Your task to perform on an android device: toggle improve location accuracy Image 0: 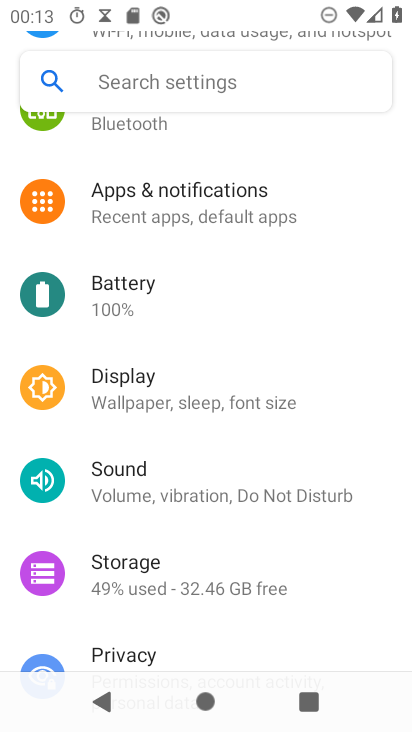
Step 0: press home button
Your task to perform on an android device: toggle improve location accuracy Image 1: 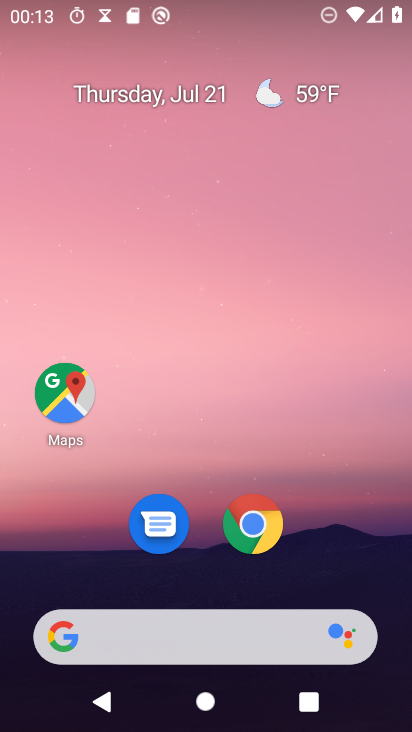
Step 1: drag from (220, 656) to (351, 147)
Your task to perform on an android device: toggle improve location accuracy Image 2: 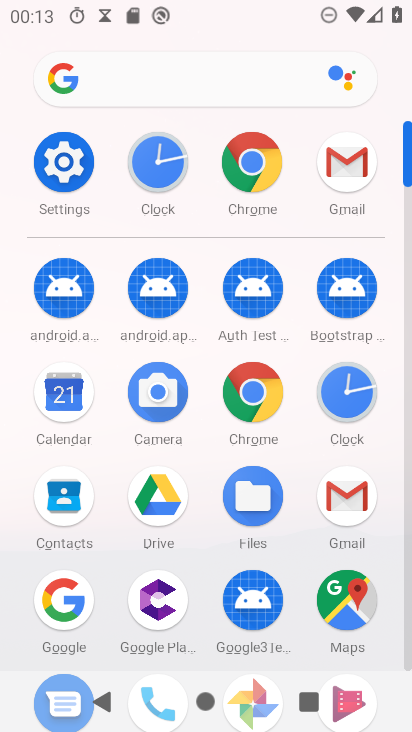
Step 2: click (78, 162)
Your task to perform on an android device: toggle improve location accuracy Image 3: 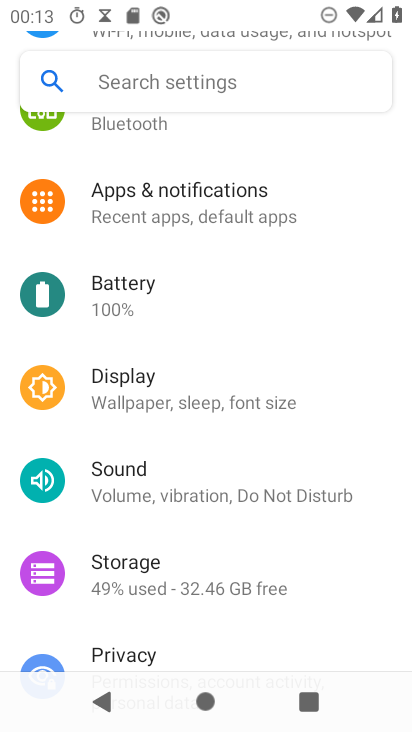
Step 3: drag from (227, 627) to (357, 187)
Your task to perform on an android device: toggle improve location accuracy Image 4: 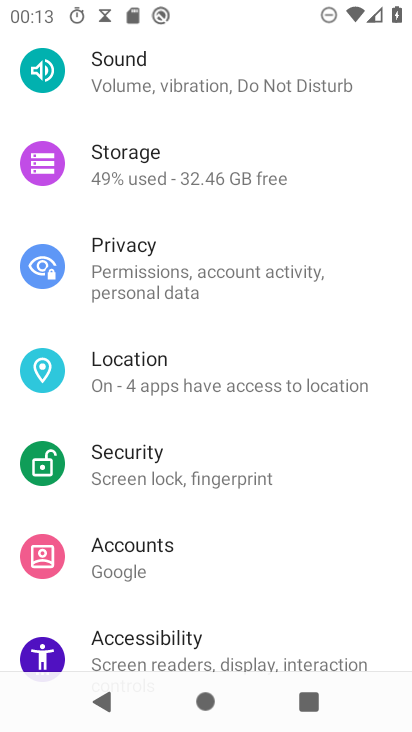
Step 4: click (138, 370)
Your task to perform on an android device: toggle improve location accuracy Image 5: 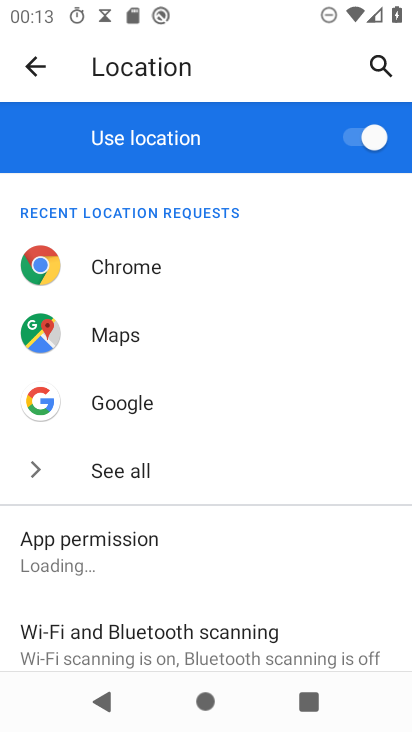
Step 5: drag from (280, 315) to (306, 119)
Your task to perform on an android device: toggle improve location accuracy Image 6: 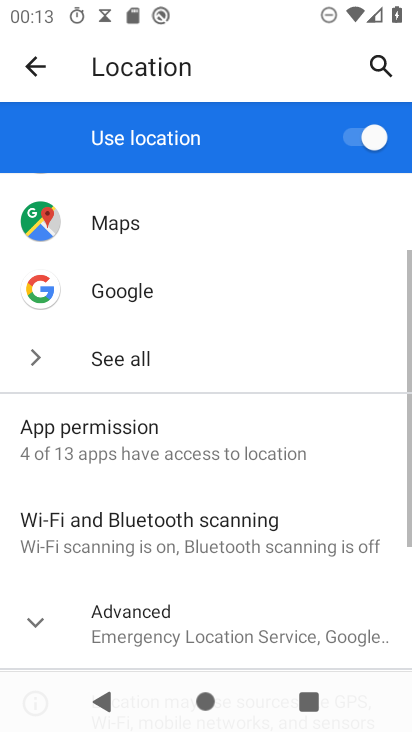
Step 6: click (179, 615)
Your task to perform on an android device: toggle improve location accuracy Image 7: 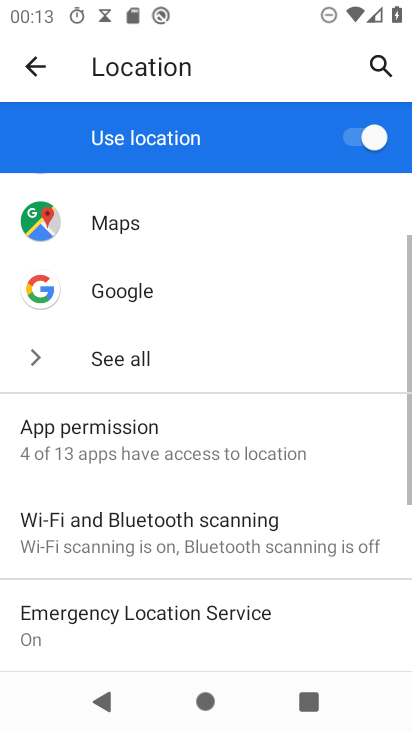
Step 7: drag from (207, 592) to (319, 237)
Your task to perform on an android device: toggle improve location accuracy Image 8: 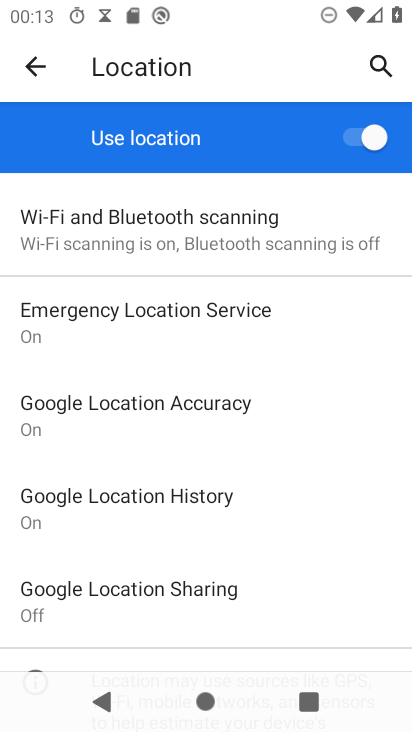
Step 8: click (177, 420)
Your task to perform on an android device: toggle improve location accuracy Image 9: 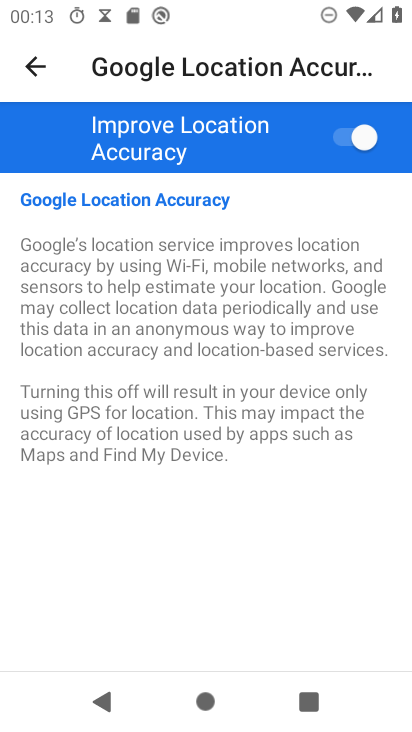
Step 9: click (344, 136)
Your task to perform on an android device: toggle improve location accuracy Image 10: 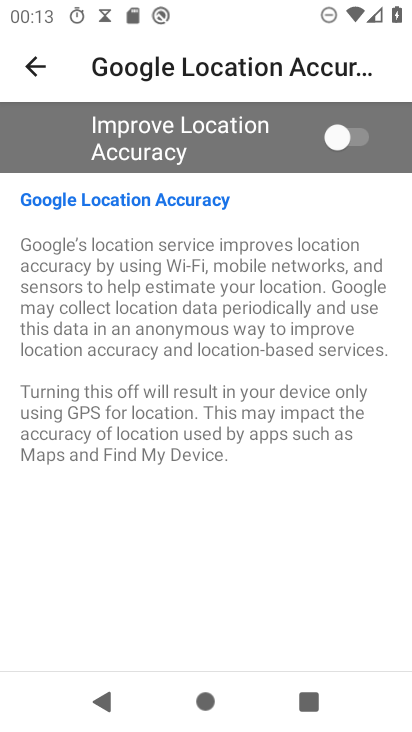
Step 10: task complete